Your task to perform on an android device: Go to Google maps Image 0: 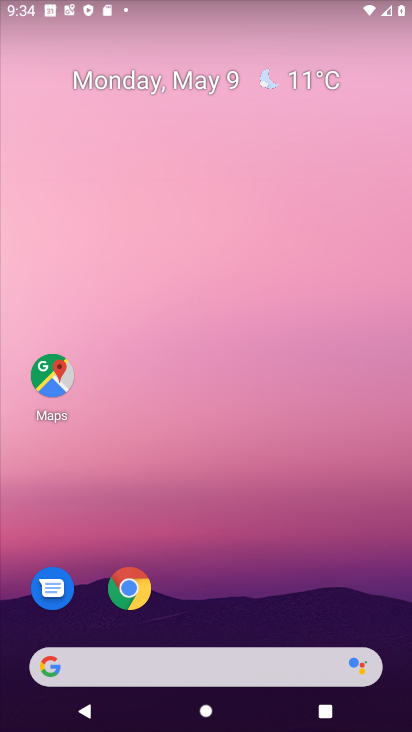
Step 0: click (59, 379)
Your task to perform on an android device: Go to Google maps Image 1: 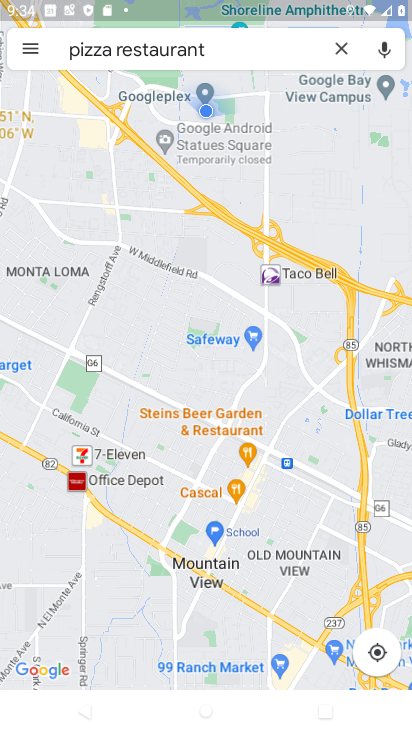
Step 1: task complete